Your task to perform on an android device: set default search engine in the chrome app Image 0: 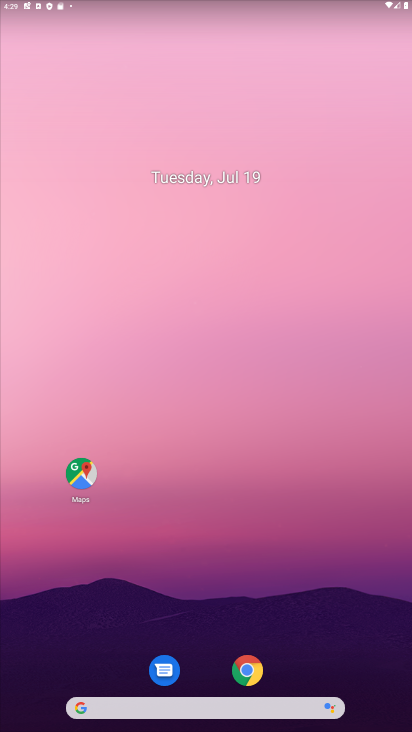
Step 0: drag from (213, 568) to (296, 39)
Your task to perform on an android device: set default search engine in the chrome app Image 1: 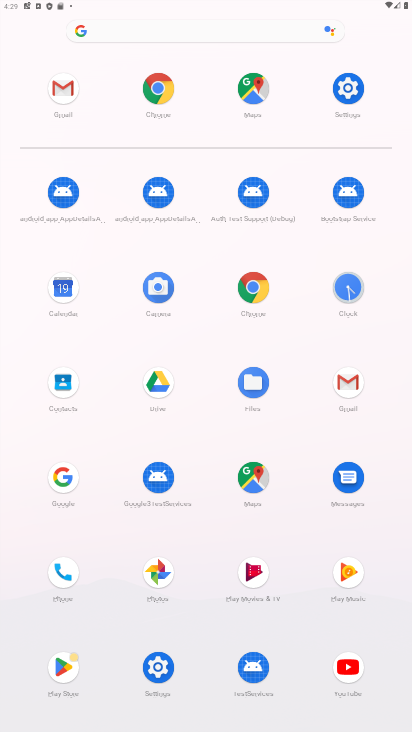
Step 1: click (255, 300)
Your task to perform on an android device: set default search engine in the chrome app Image 2: 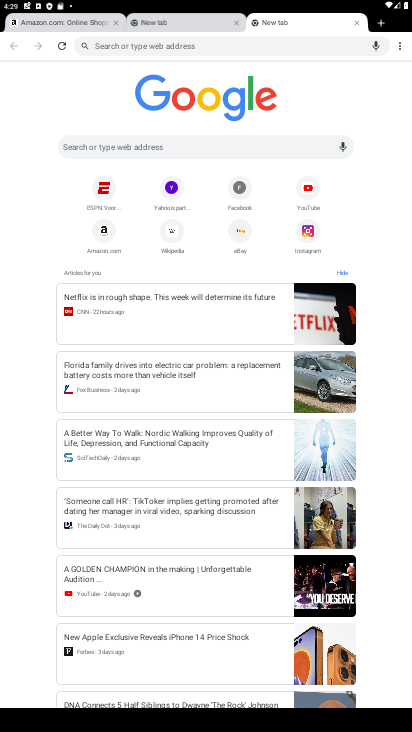
Step 2: click (394, 41)
Your task to perform on an android device: set default search engine in the chrome app Image 3: 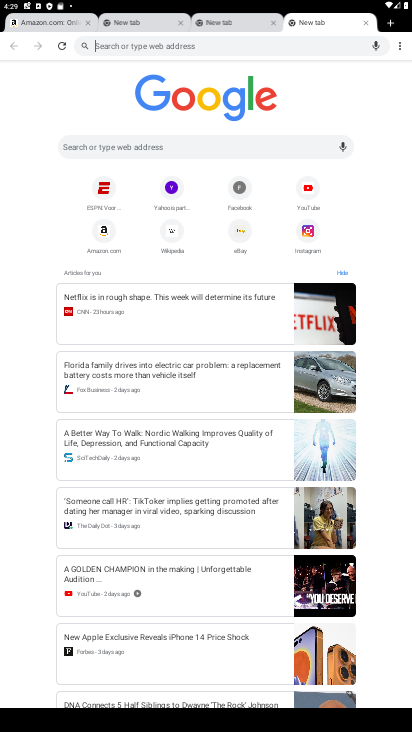
Step 3: drag from (398, 43) to (322, 213)
Your task to perform on an android device: set default search engine in the chrome app Image 4: 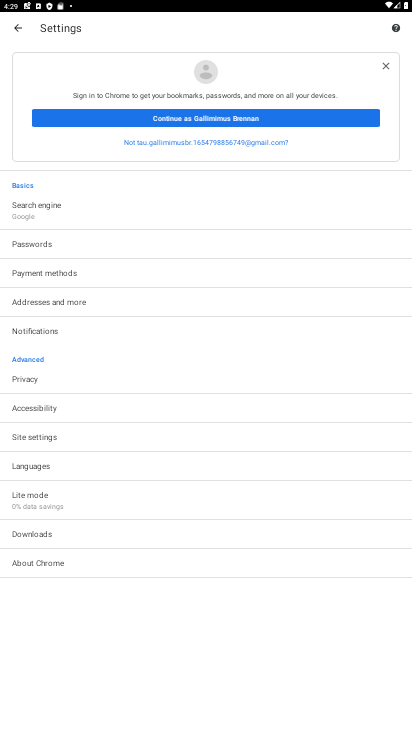
Step 4: click (35, 216)
Your task to perform on an android device: set default search engine in the chrome app Image 5: 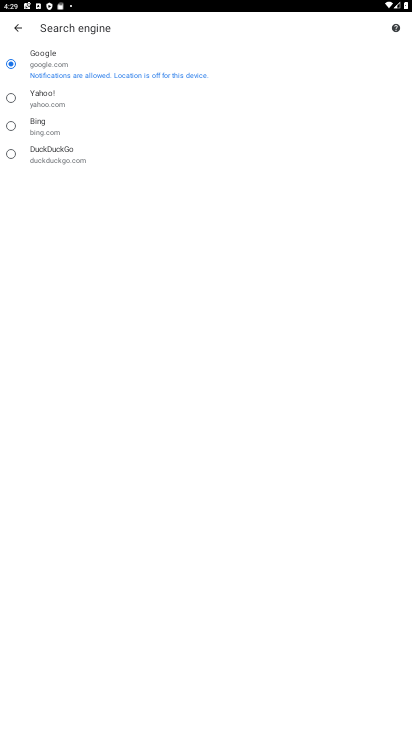
Step 5: task complete